Your task to perform on an android device: Go to Google maps Image 0: 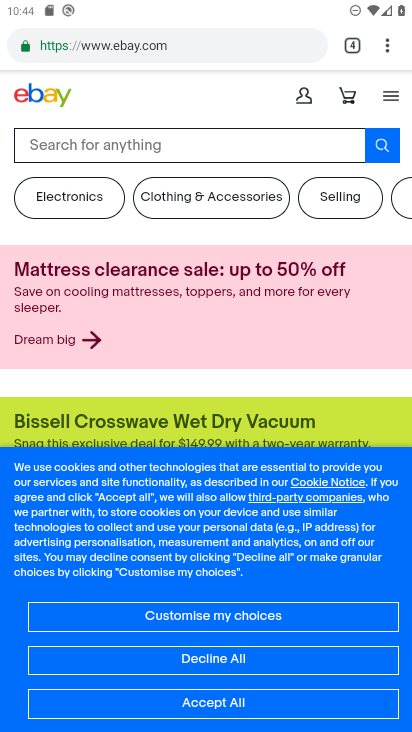
Step 0: press home button
Your task to perform on an android device: Go to Google maps Image 1: 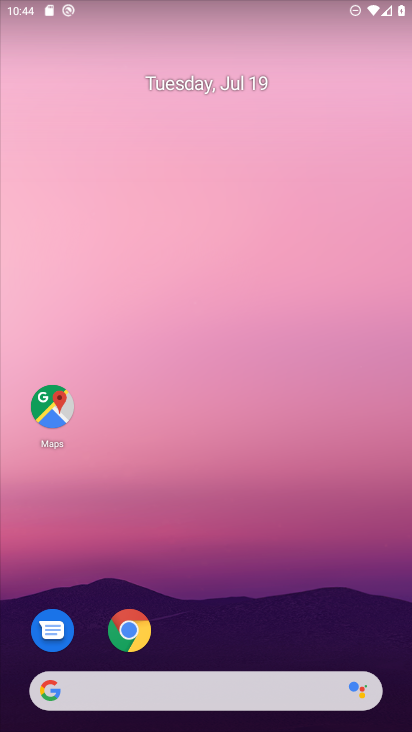
Step 1: click (50, 429)
Your task to perform on an android device: Go to Google maps Image 2: 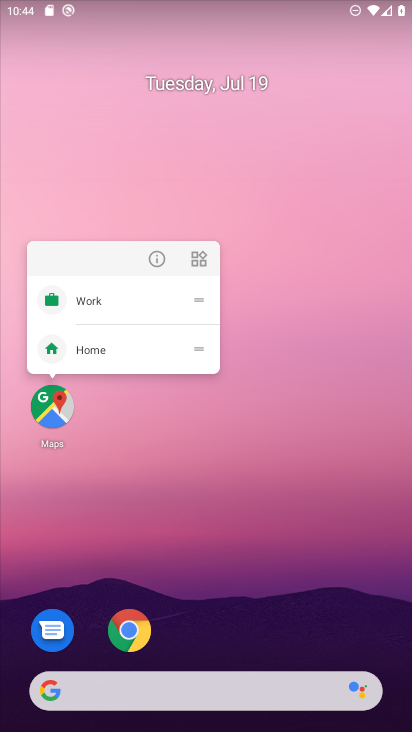
Step 2: click (50, 429)
Your task to perform on an android device: Go to Google maps Image 3: 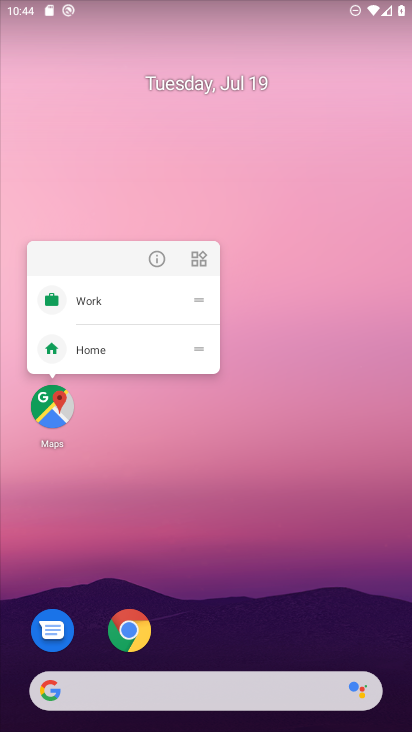
Step 3: click (45, 424)
Your task to perform on an android device: Go to Google maps Image 4: 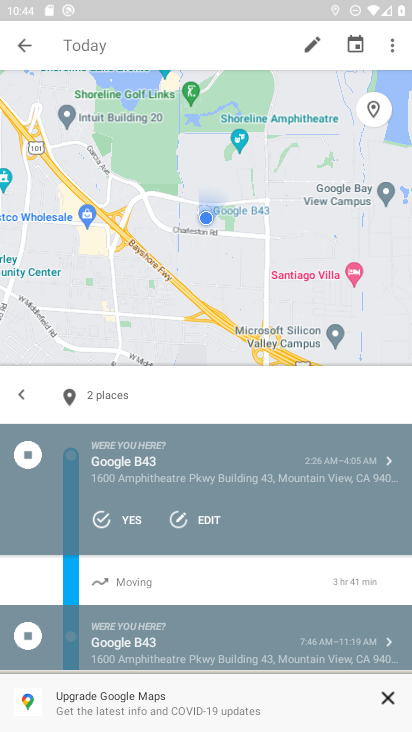
Step 4: task complete